Your task to perform on an android device: check google app version Image 0: 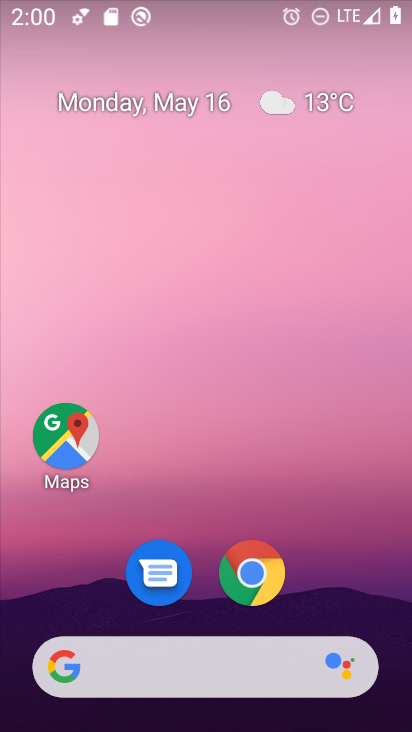
Step 0: drag from (215, 658) to (185, 82)
Your task to perform on an android device: check google app version Image 1: 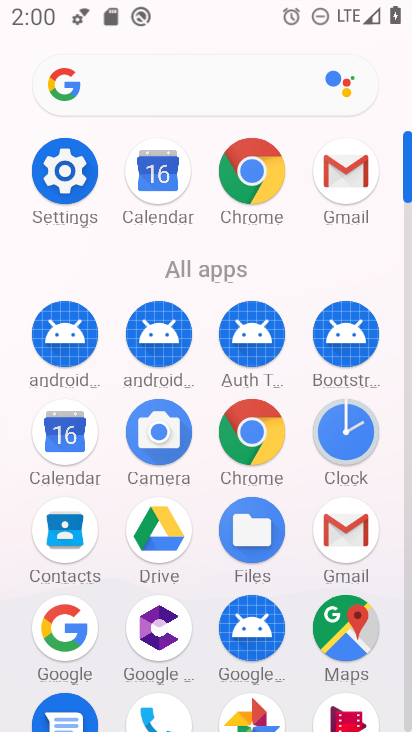
Step 1: click (88, 629)
Your task to perform on an android device: check google app version Image 2: 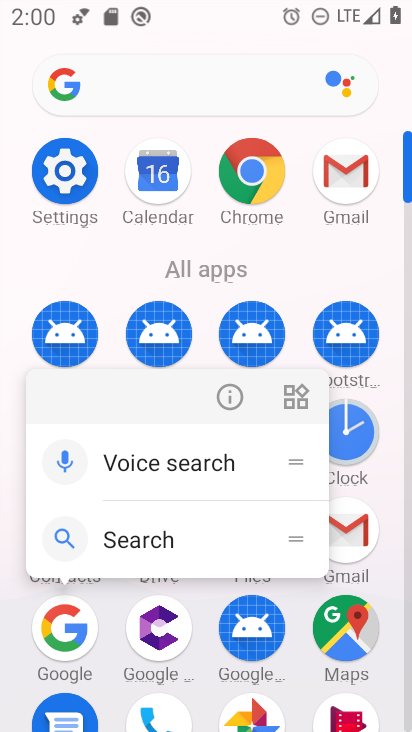
Step 2: click (230, 389)
Your task to perform on an android device: check google app version Image 3: 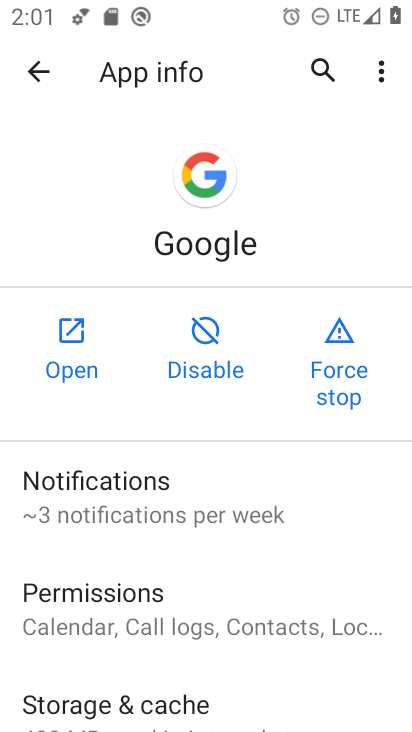
Step 3: drag from (125, 562) to (12, 10)
Your task to perform on an android device: check google app version Image 4: 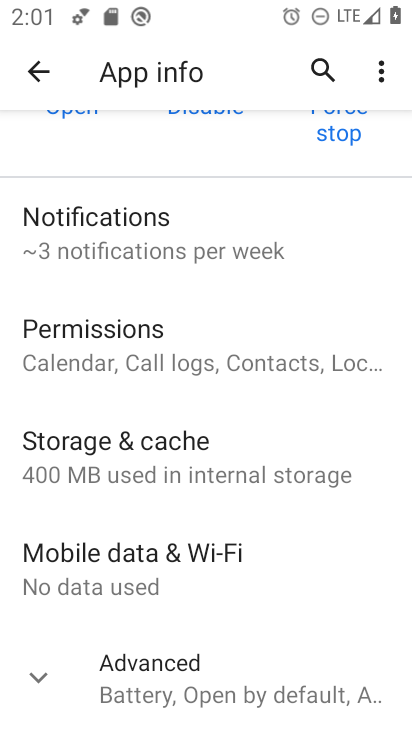
Step 4: click (140, 670)
Your task to perform on an android device: check google app version Image 5: 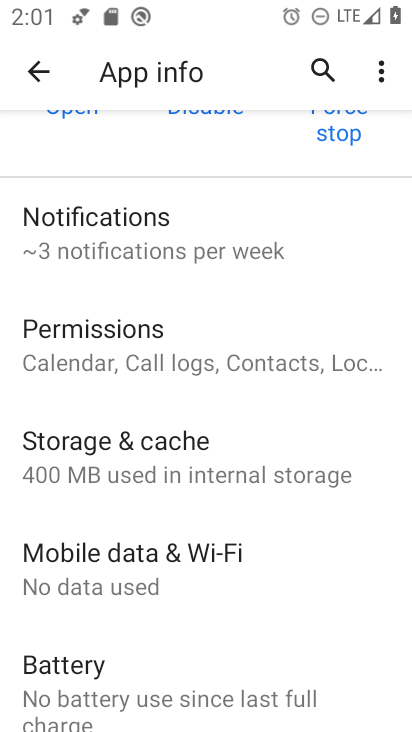
Step 5: task complete